Your task to perform on an android device: Go to sound settings Image 0: 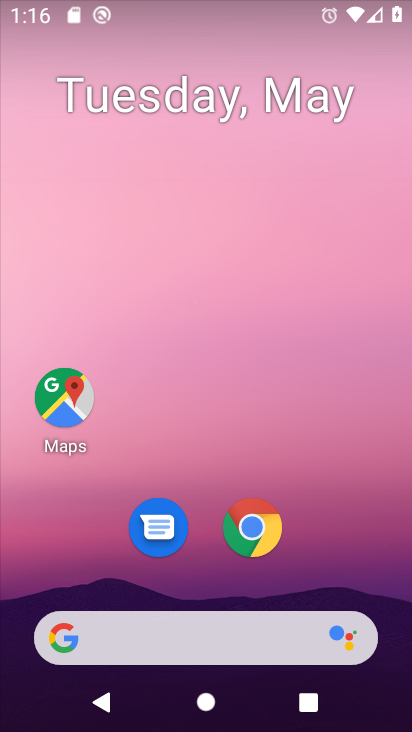
Step 0: drag from (270, 698) to (289, 249)
Your task to perform on an android device: Go to sound settings Image 1: 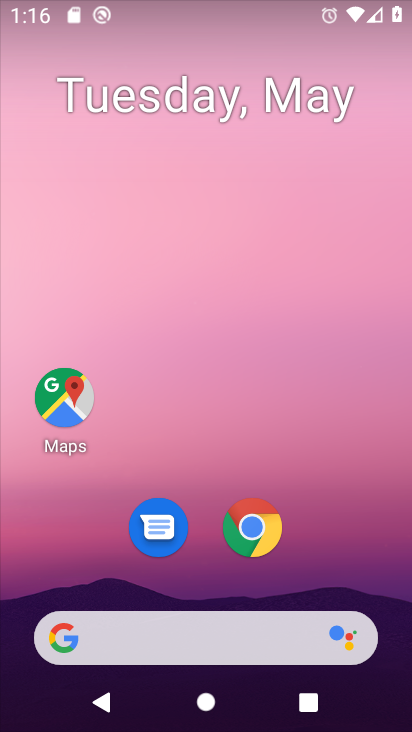
Step 1: drag from (247, 695) to (269, 233)
Your task to perform on an android device: Go to sound settings Image 2: 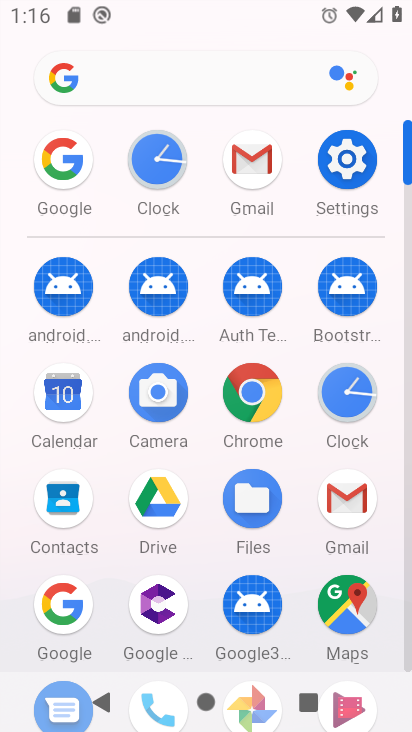
Step 2: click (363, 170)
Your task to perform on an android device: Go to sound settings Image 3: 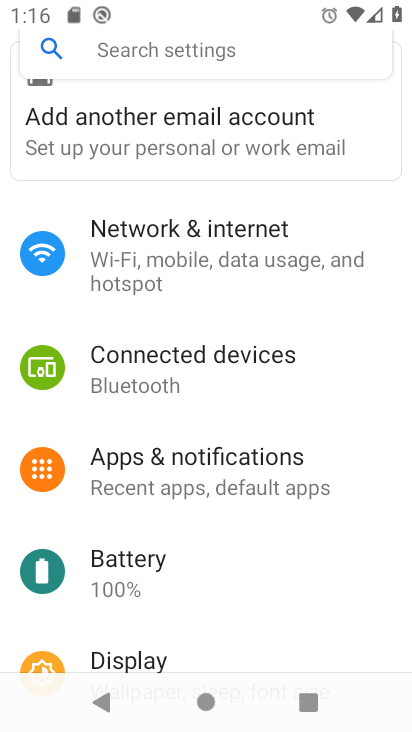
Step 3: drag from (239, 612) to (260, 105)
Your task to perform on an android device: Go to sound settings Image 4: 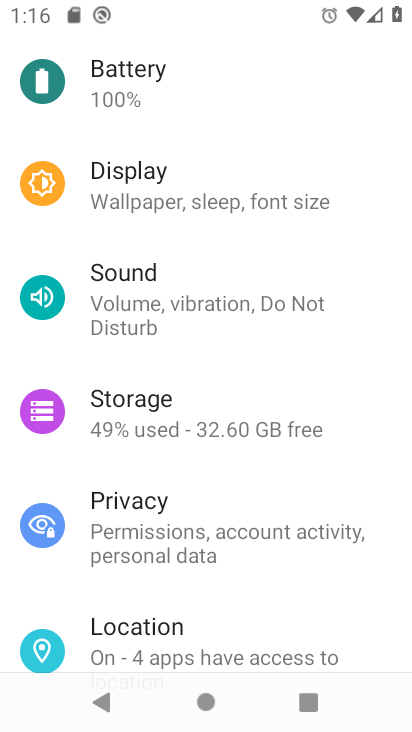
Step 4: click (111, 314)
Your task to perform on an android device: Go to sound settings Image 5: 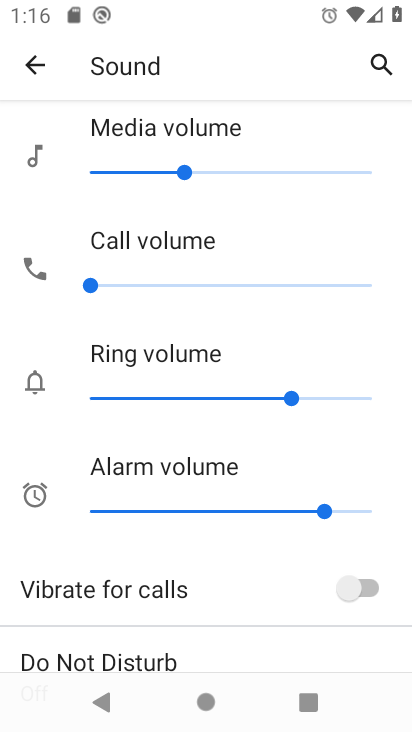
Step 5: task complete